Your task to perform on an android device: open the mobile data screen to see how much data has been used Image 0: 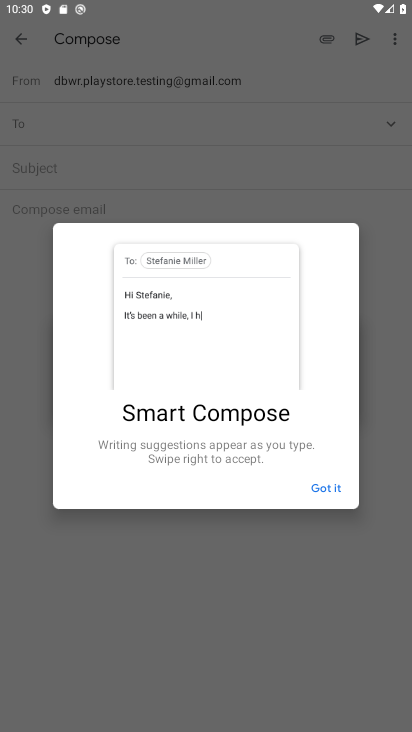
Step 0: press home button
Your task to perform on an android device: open the mobile data screen to see how much data has been used Image 1: 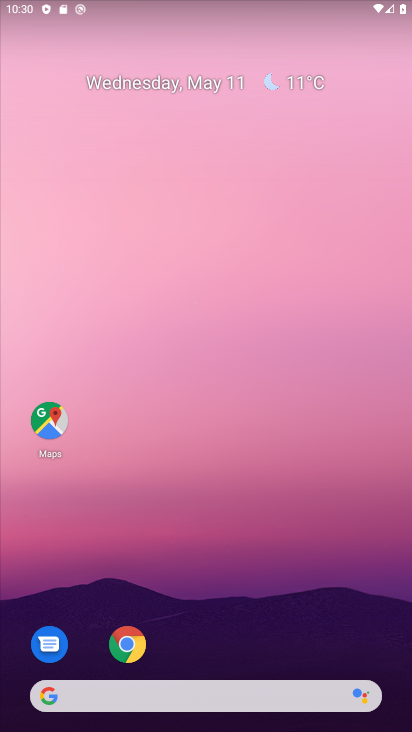
Step 1: drag from (379, 587) to (406, 140)
Your task to perform on an android device: open the mobile data screen to see how much data has been used Image 2: 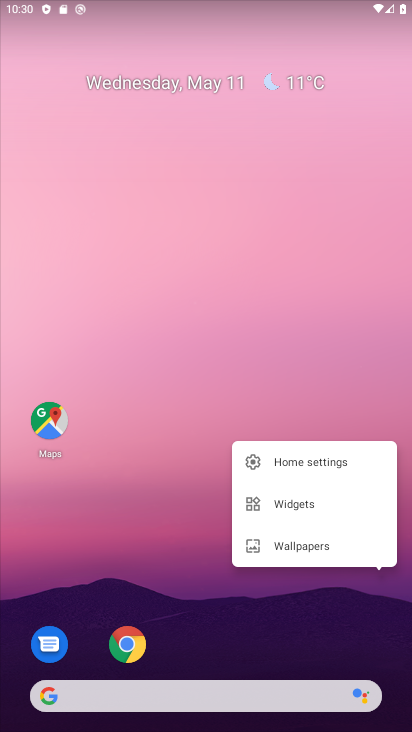
Step 2: drag from (172, 549) to (263, 15)
Your task to perform on an android device: open the mobile data screen to see how much data has been used Image 3: 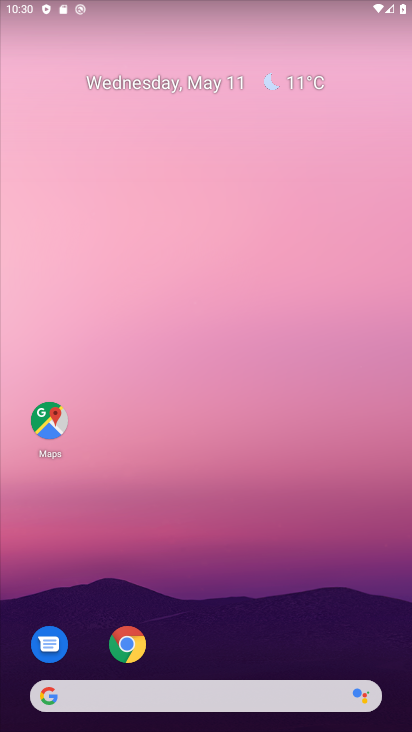
Step 3: drag from (338, 607) to (399, 16)
Your task to perform on an android device: open the mobile data screen to see how much data has been used Image 4: 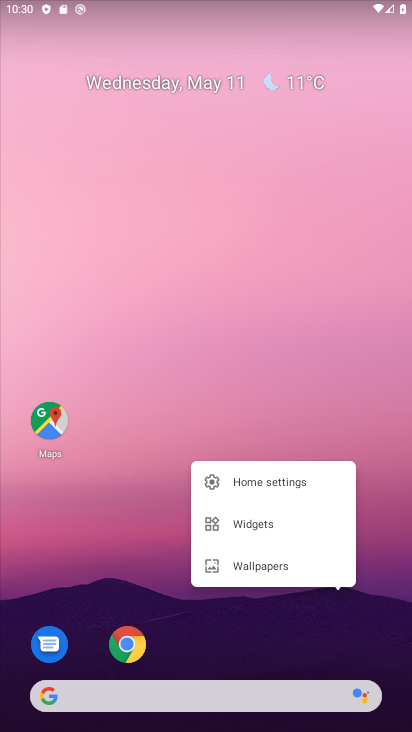
Step 4: drag from (364, 582) to (412, 59)
Your task to perform on an android device: open the mobile data screen to see how much data has been used Image 5: 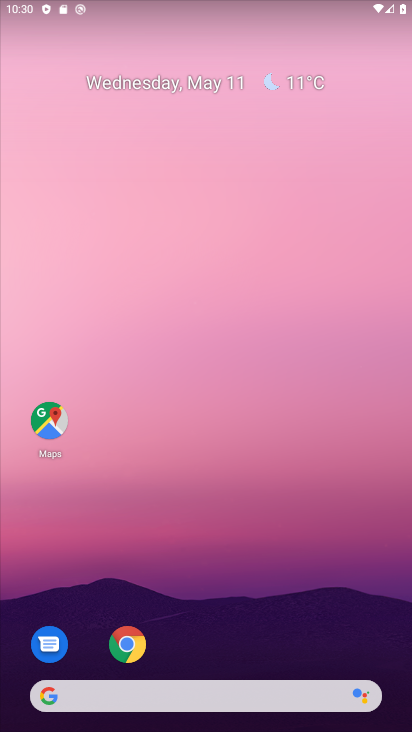
Step 5: drag from (335, 595) to (395, 5)
Your task to perform on an android device: open the mobile data screen to see how much data has been used Image 6: 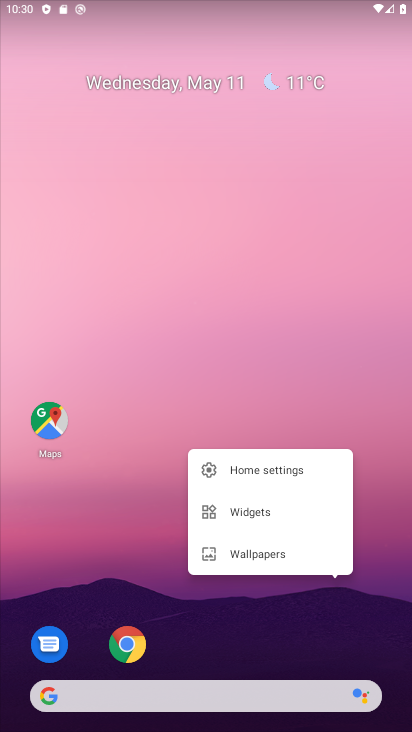
Step 6: click (364, 564)
Your task to perform on an android device: open the mobile data screen to see how much data has been used Image 7: 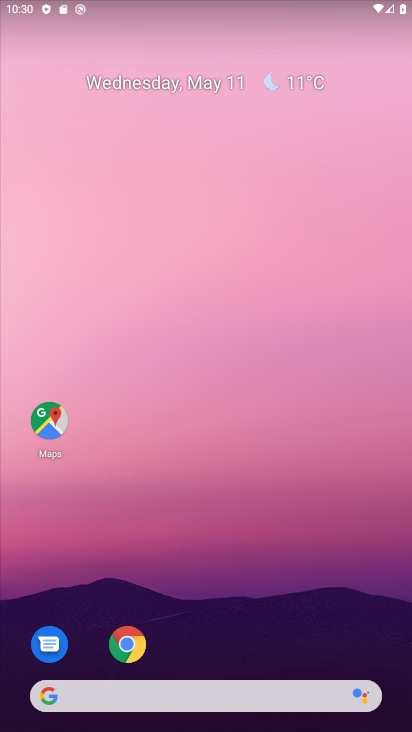
Step 7: drag from (410, 136) to (280, 0)
Your task to perform on an android device: open the mobile data screen to see how much data has been used Image 8: 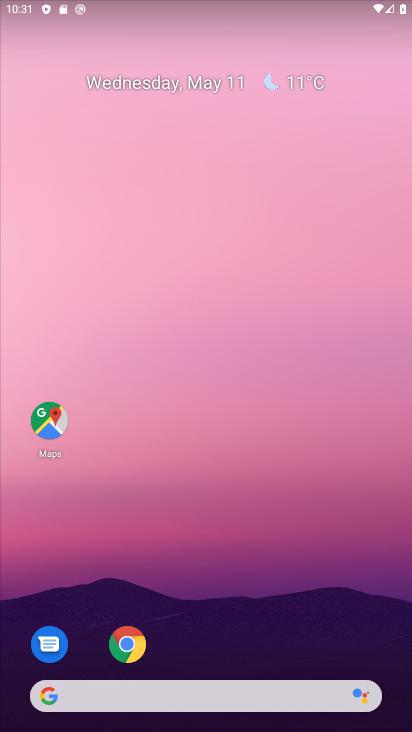
Step 8: drag from (355, 623) to (412, 8)
Your task to perform on an android device: open the mobile data screen to see how much data has been used Image 9: 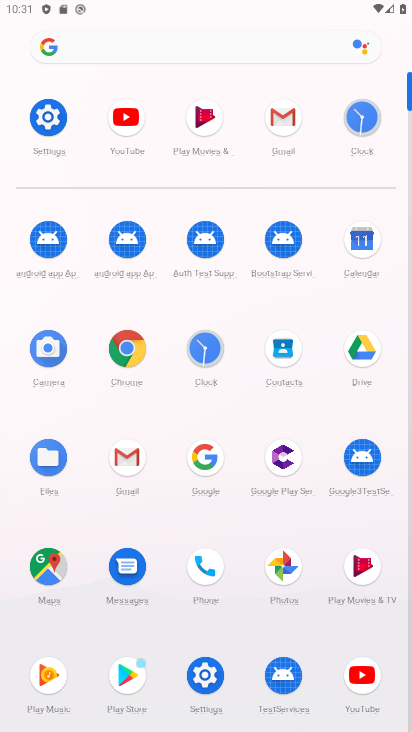
Step 9: click (43, 119)
Your task to perform on an android device: open the mobile data screen to see how much data has been used Image 10: 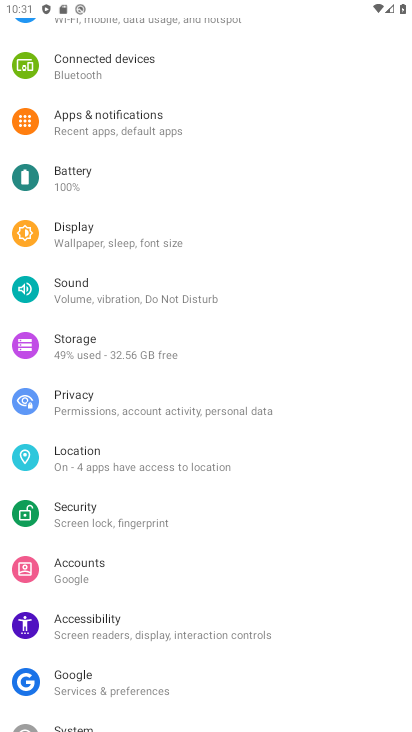
Step 10: drag from (232, 136) to (232, 518)
Your task to perform on an android device: open the mobile data screen to see how much data has been used Image 11: 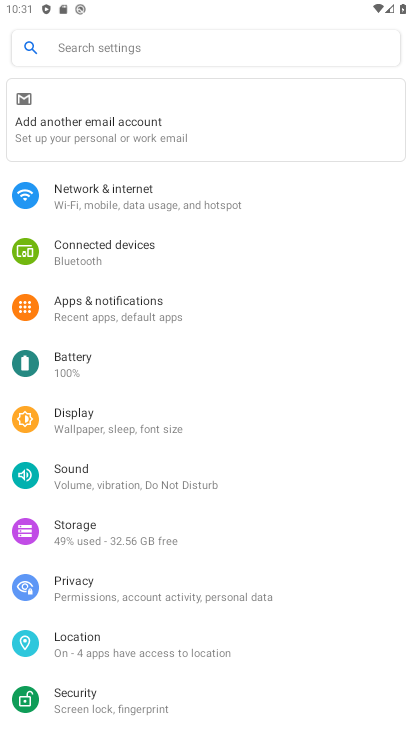
Step 11: click (119, 198)
Your task to perform on an android device: open the mobile data screen to see how much data has been used Image 12: 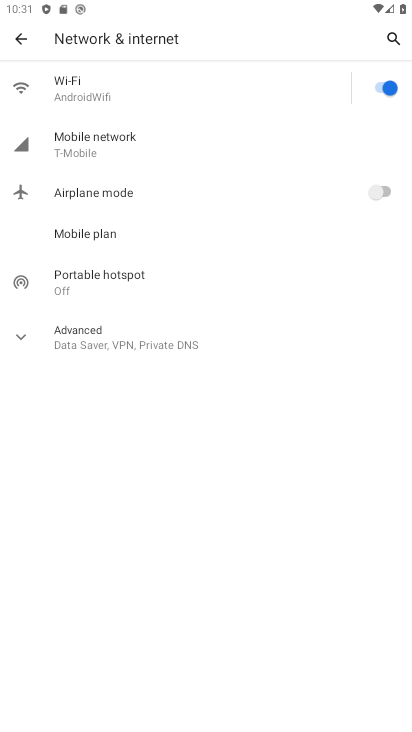
Step 12: click (95, 141)
Your task to perform on an android device: open the mobile data screen to see how much data has been used Image 13: 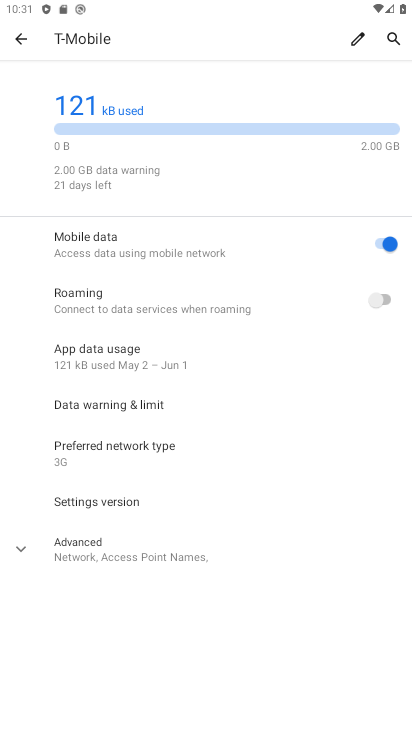
Step 13: click (81, 355)
Your task to perform on an android device: open the mobile data screen to see how much data has been used Image 14: 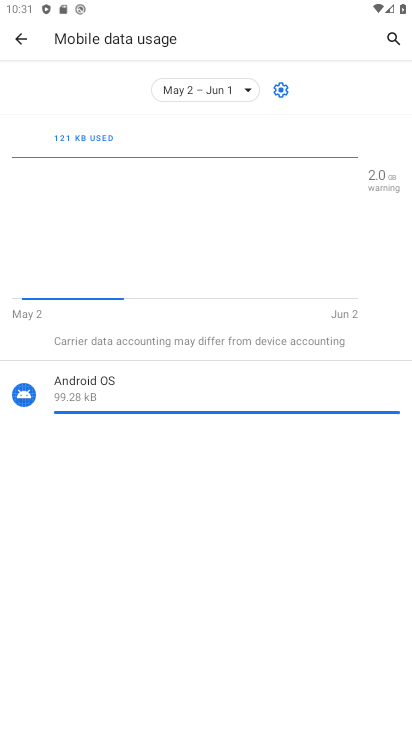
Step 14: task complete